Your task to perform on an android device: change alarm snooze length Image 0: 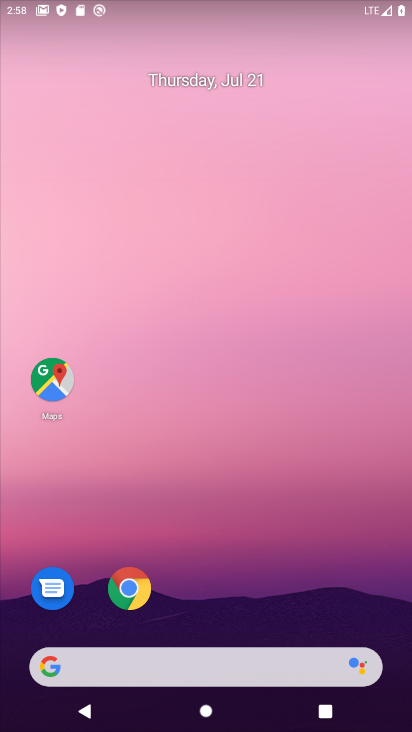
Step 0: drag from (260, 617) to (323, 0)
Your task to perform on an android device: change alarm snooze length Image 1: 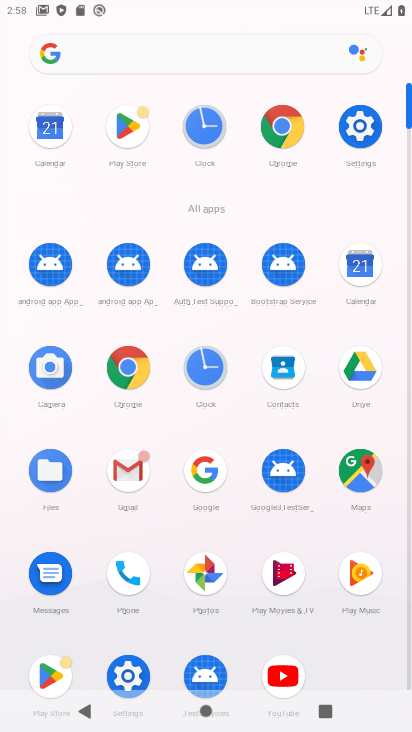
Step 1: click (209, 140)
Your task to perform on an android device: change alarm snooze length Image 2: 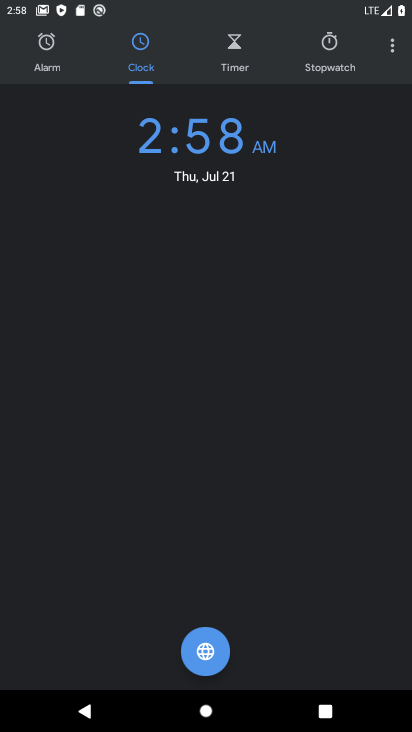
Step 2: click (396, 49)
Your task to perform on an android device: change alarm snooze length Image 3: 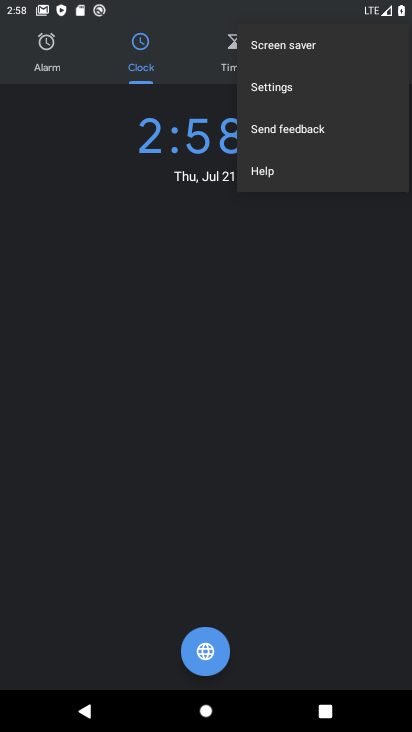
Step 3: click (313, 83)
Your task to perform on an android device: change alarm snooze length Image 4: 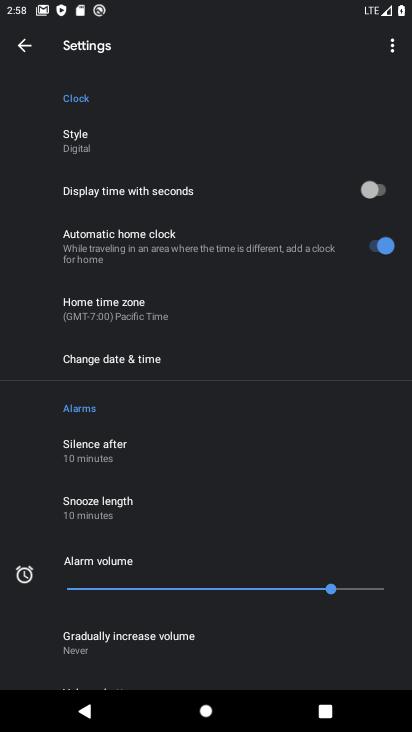
Step 4: click (140, 506)
Your task to perform on an android device: change alarm snooze length Image 5: 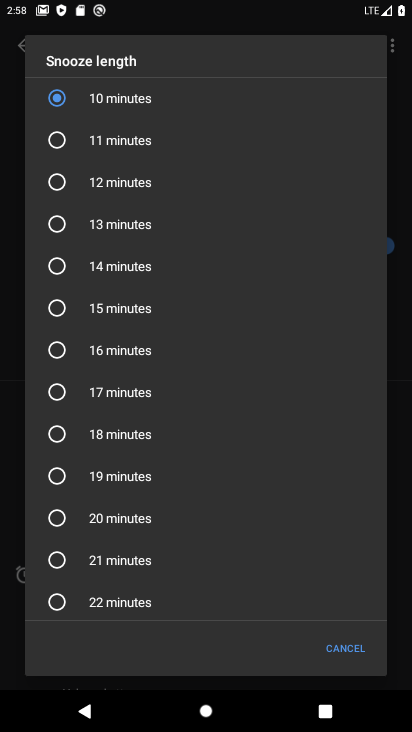
Step 5: click (166, 267)
Your task to perform on an android device: change alarm snooze length Image 6: 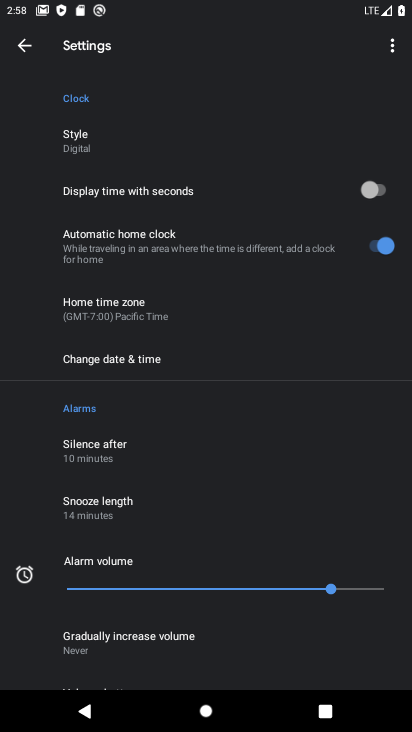
Step 6: task complete